Your task to perform on an android device: Do I have any events this weekend? Image 0: 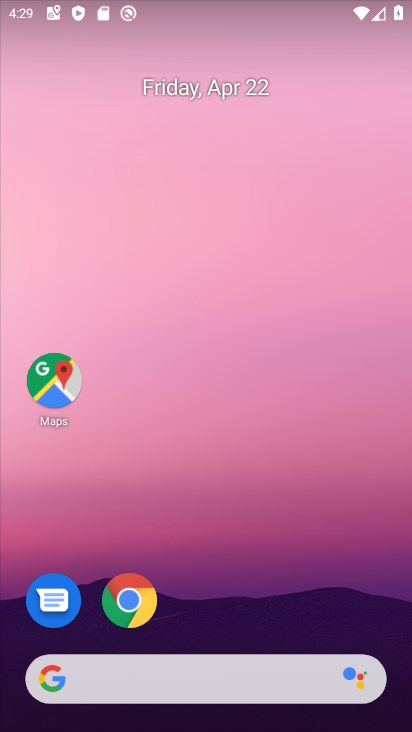
Step 0: press home button
Your task to perform on an android device: Do I have any events this weekend? Image 1: 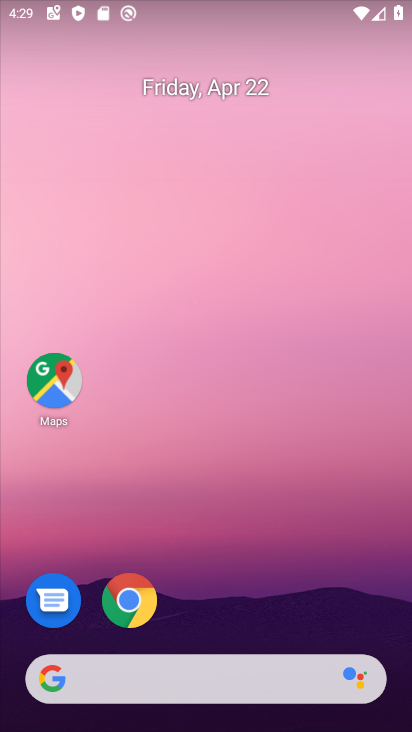
Step 1: drag from (153, 721) to (134, 368)
Your task to perform on an android device: Do I have any events this weekend? Image 2: 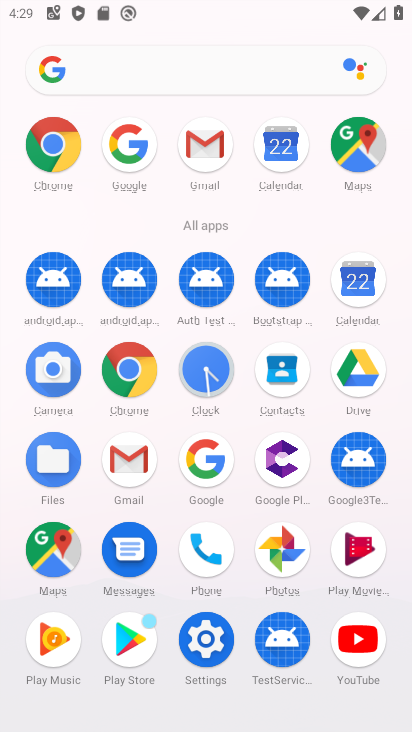
Step 2: drag from (243, 677) to (308, 301)
Your task to perform on an android device: Do I have any events this weekend? Image 3: 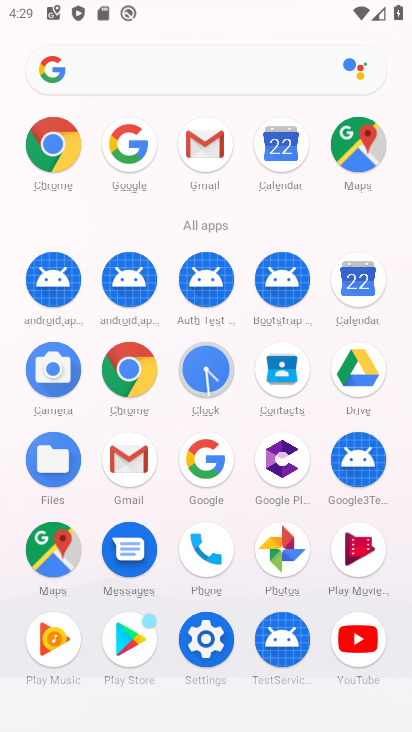
Step 3: click (351, 293)
Your task to perform on an android device: Do I have any events this weekend? Image 4: 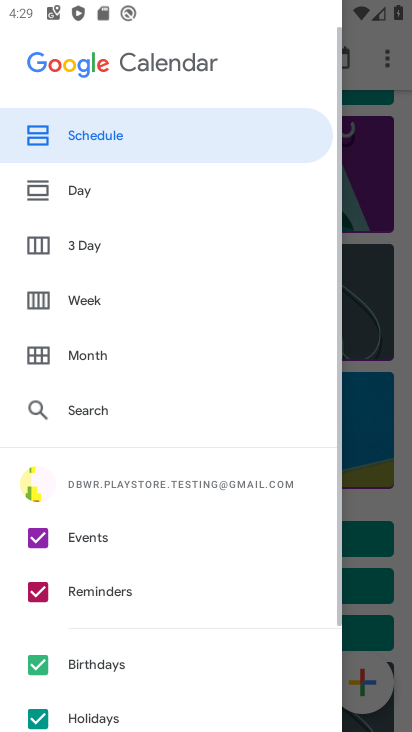
Step 4: click (160, 306)
Your task to perform on an android device: Do I have any events this weekend? Image 5: 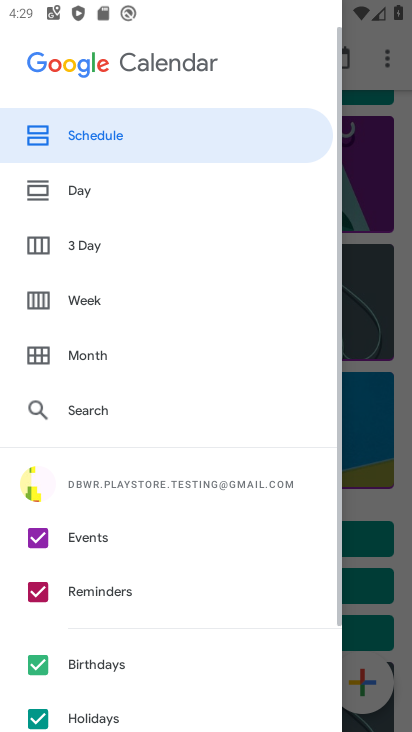
Step 5: click (72, 306)
Your task to perform on an android device: Do I have any events this weekend? Image 6: 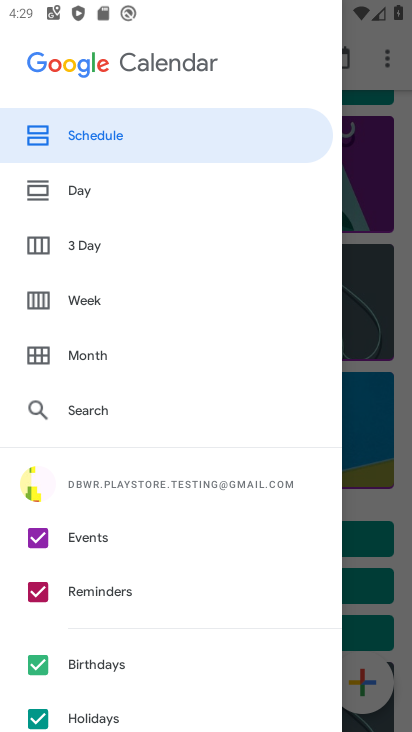
Step 6: click (72, 306)
Your task to perform on an android device: Do I have any events this weekend? Image 7: 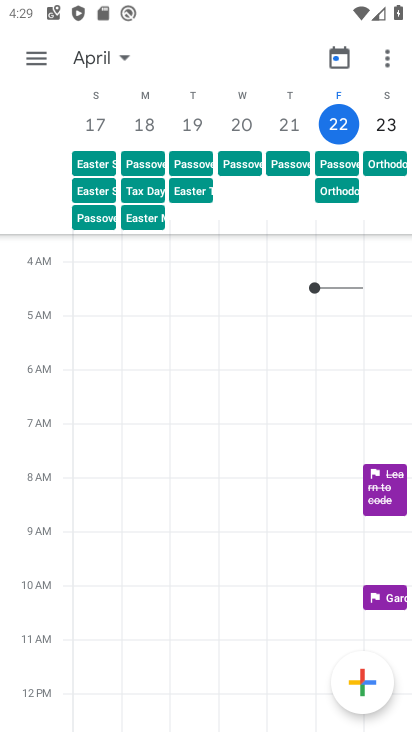
Step 7: task complete